Your task to perform on an android device: Open notification settings Image 0: 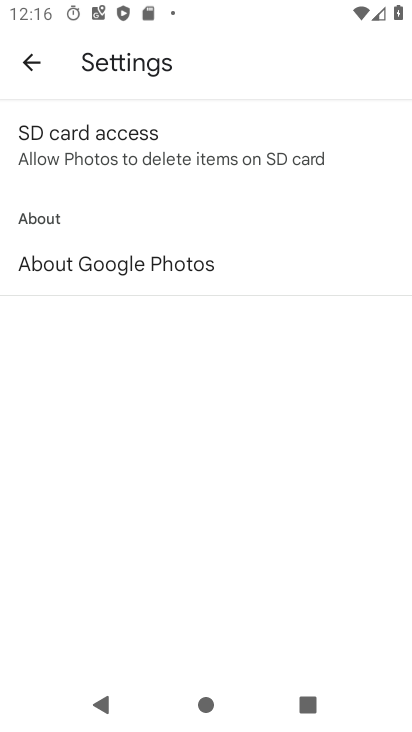
Step 0: press home button
Your task to perform on an android device: Open notification settings Image 1: 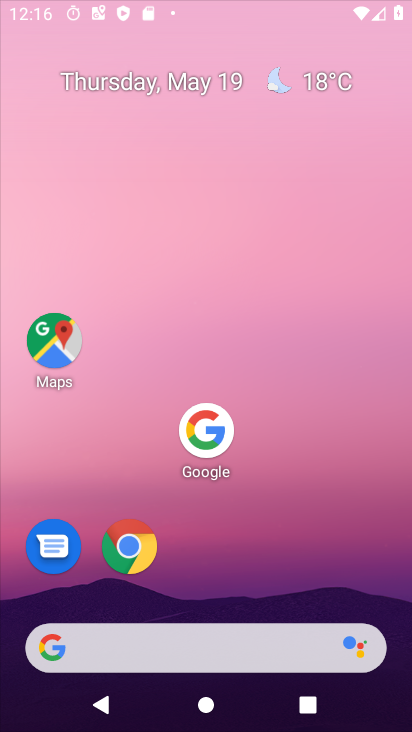
Step 1: drag from (223, 573) to (248, 85)
Your task to perform on an android device: Open notification settings Image 2: 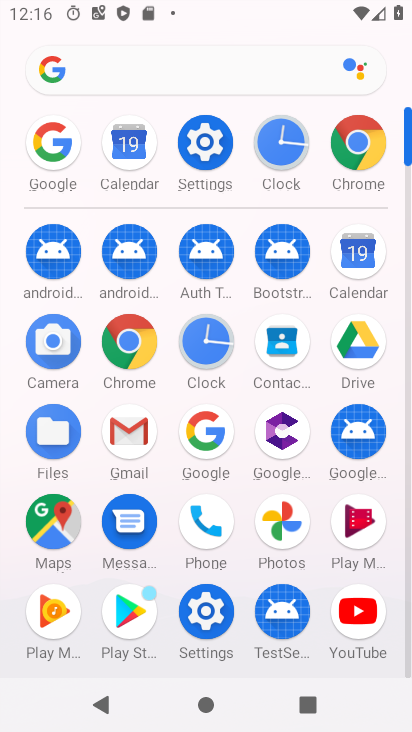
Step 2: click (208, 133)
Your task to perform on an android device: Open notification settings Image 3: 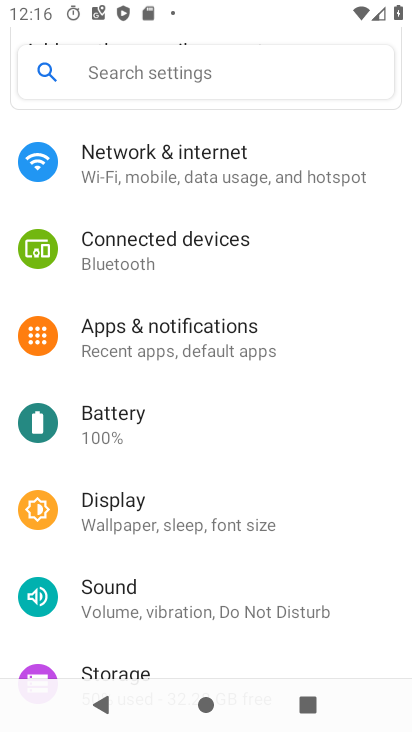
Step 3: click (201, 340)
Your task to perform on an android device: Open notification settings Image 4: 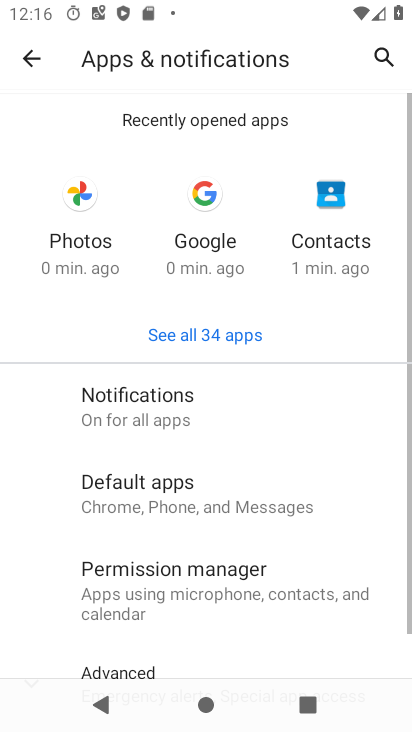
Step 4: click (191, 425)
Your task to perform on an android device: Open notification settings Image 5: 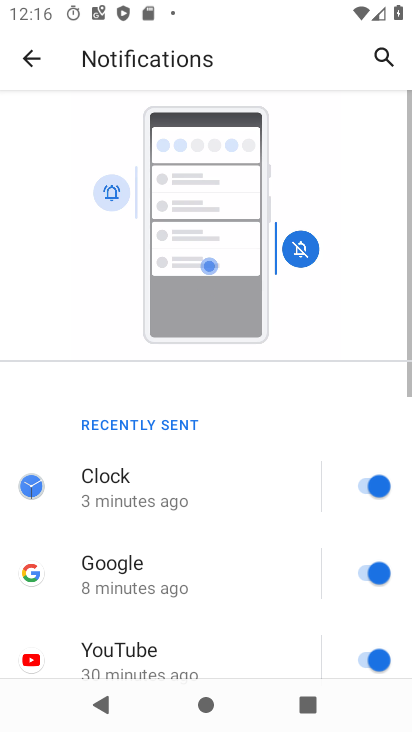
Step 5: task complete